Your task to perform on an android device: uninstall "Roku - Official Remote Control" Image 0: 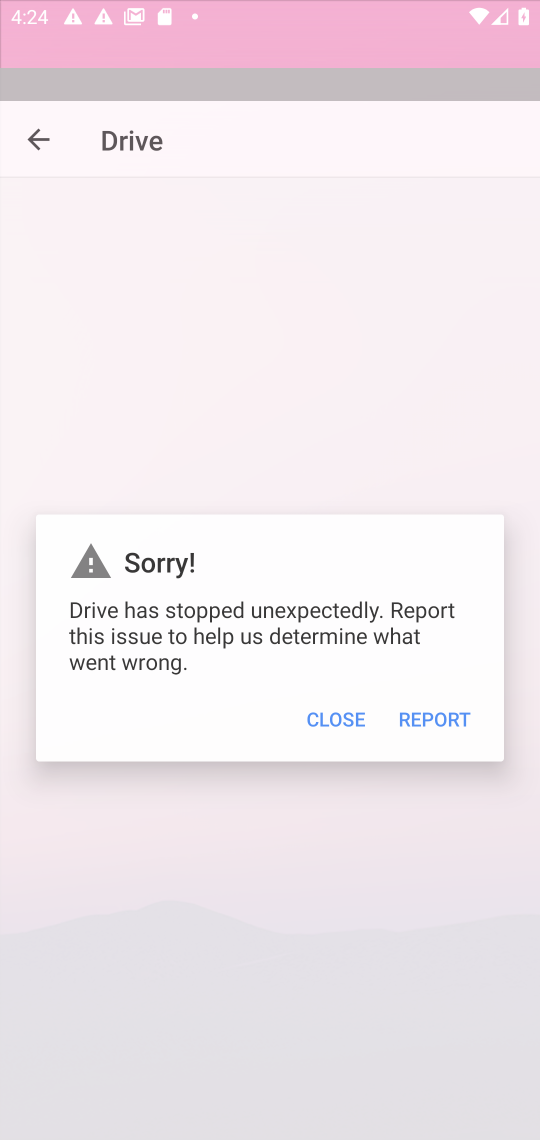
Step 0: press home button
Your task to perform on an android device: uninstall "Roku - Official Remote Control" Image 1: 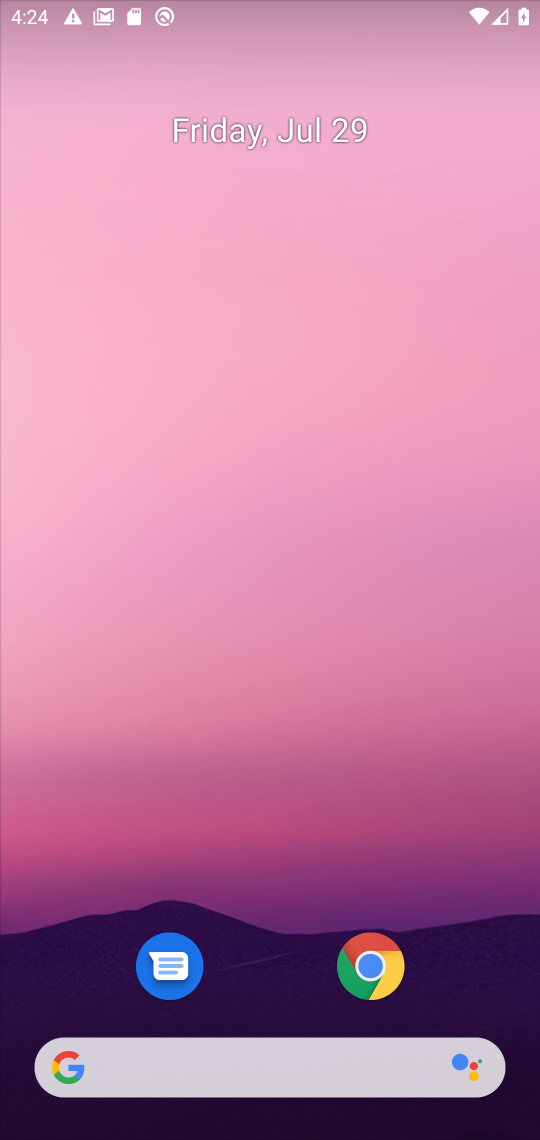
Step 1: click (403, 897)
Your task to perform on an android device: uninstall "Roku - Official Remote Control" Image 2: 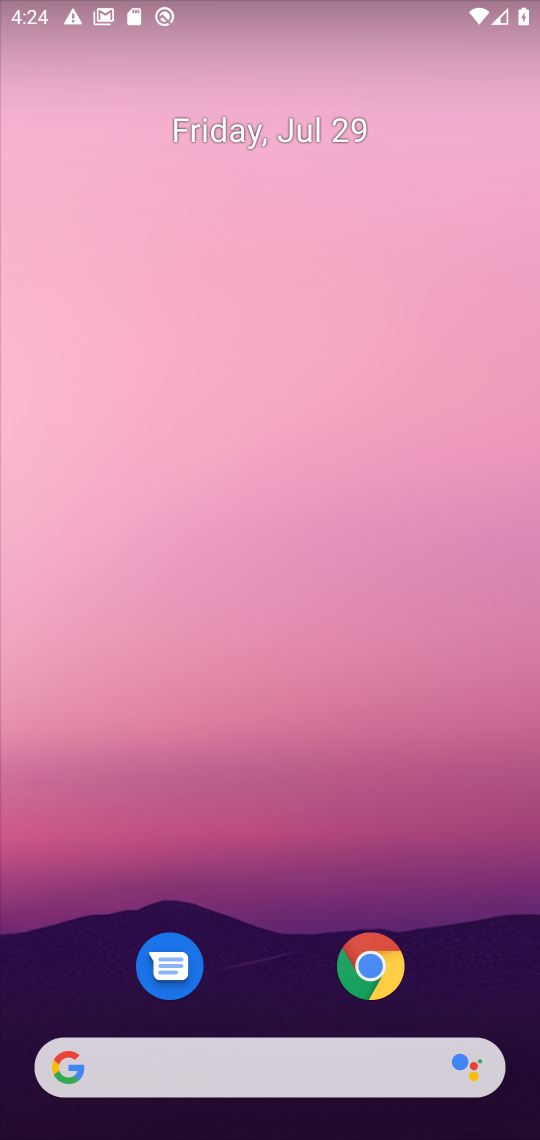
Step 2: drag from (264, 1005) to (268, 82)
Your task to perform on an android device: uninstall "Roku - Official Remote Control" Image 3: 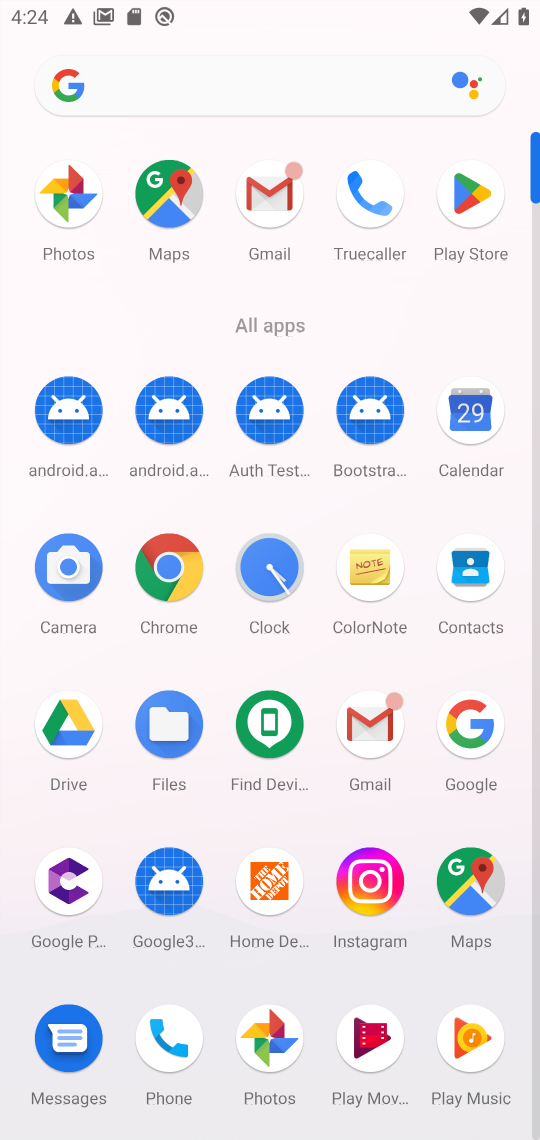
Step 3: click (467, 227)
Your task to perform on an android device: uninstall "Roku - Official Remote Control" Image 4: 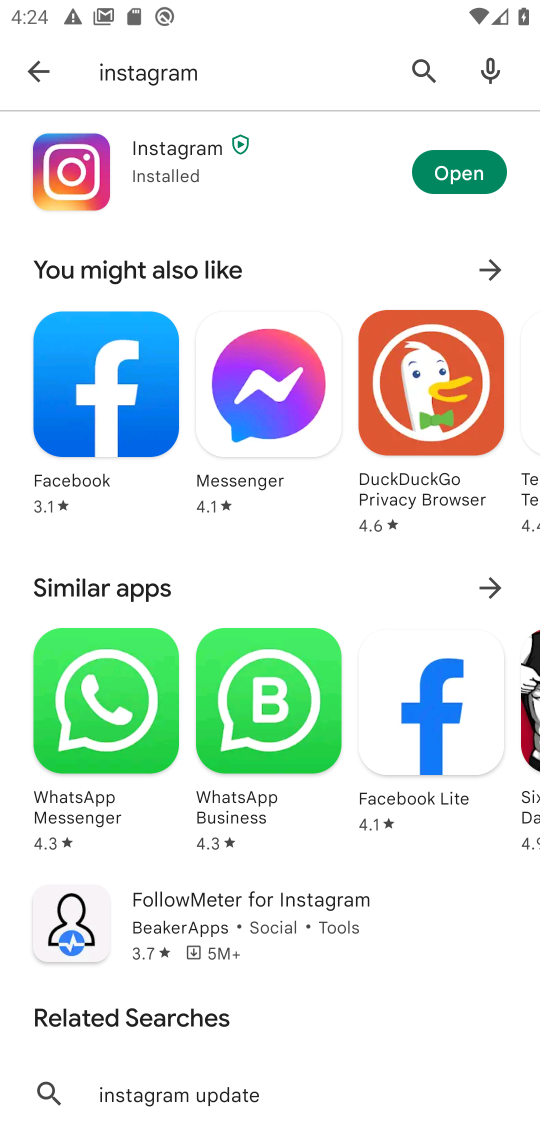
Step 4: click (171, 84)
Your task to perform on an android device: uninstall "Roku - Official Remote Control" Image 5: 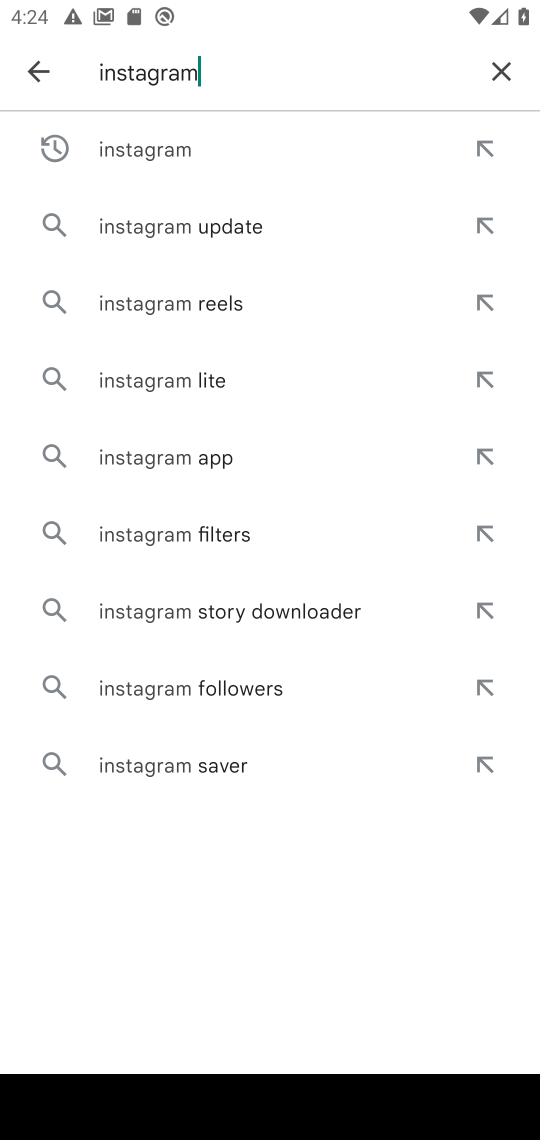
Step 5: click (497, 65)
Your task to perform on an android device: uninstall "Roku - Official Remote Control" Image 6: 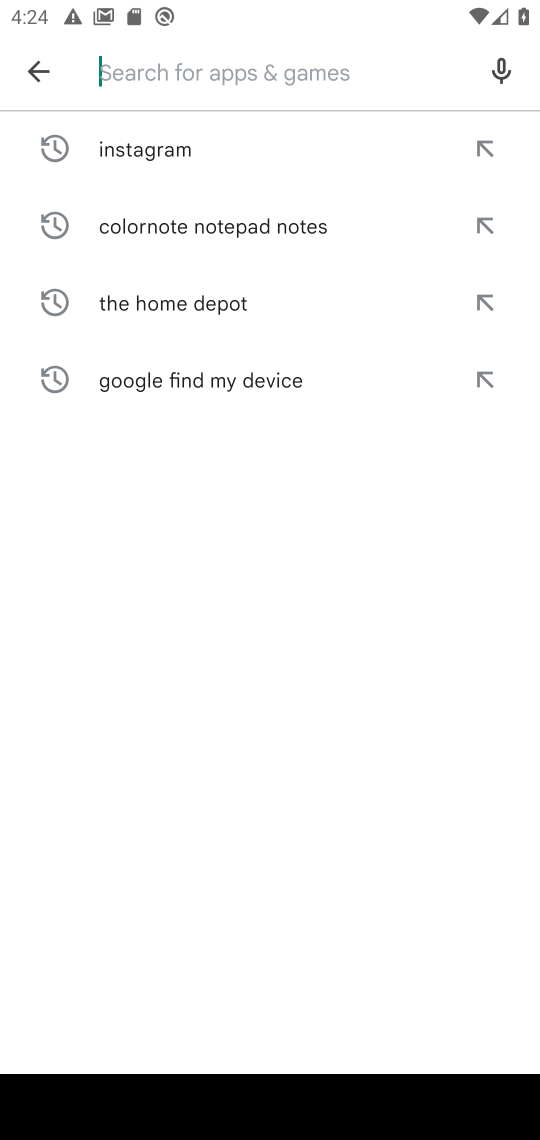
Step 6: type "Roku"
Your task to perform on an android device: uninstall "Roku - Official Remote Control" Image 7: 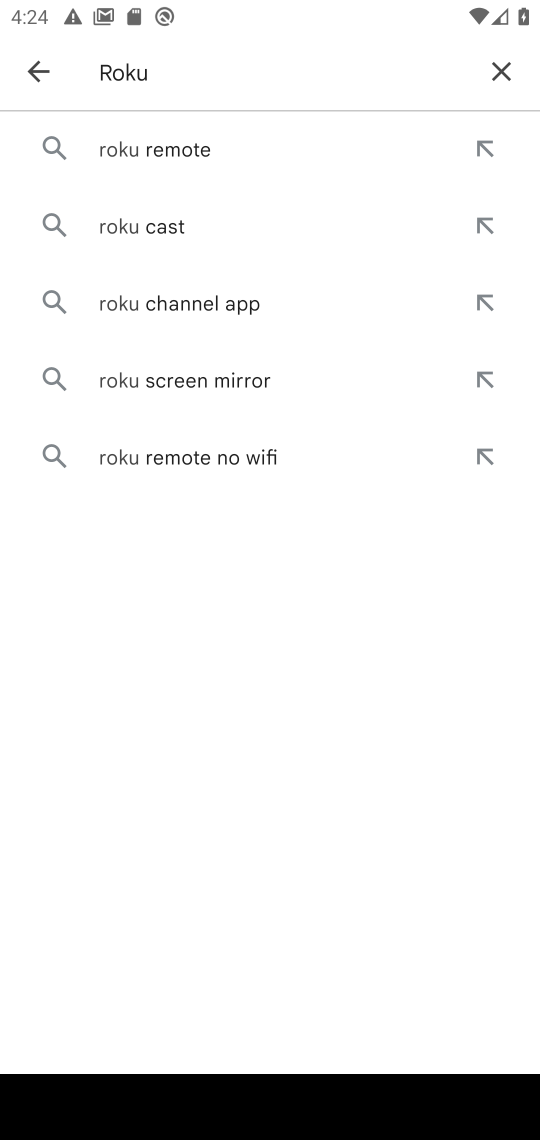
Step 7: click (194, 165)
Your task to perform on an android device: uninstall "Roku - Official Remote Control" Image 8: 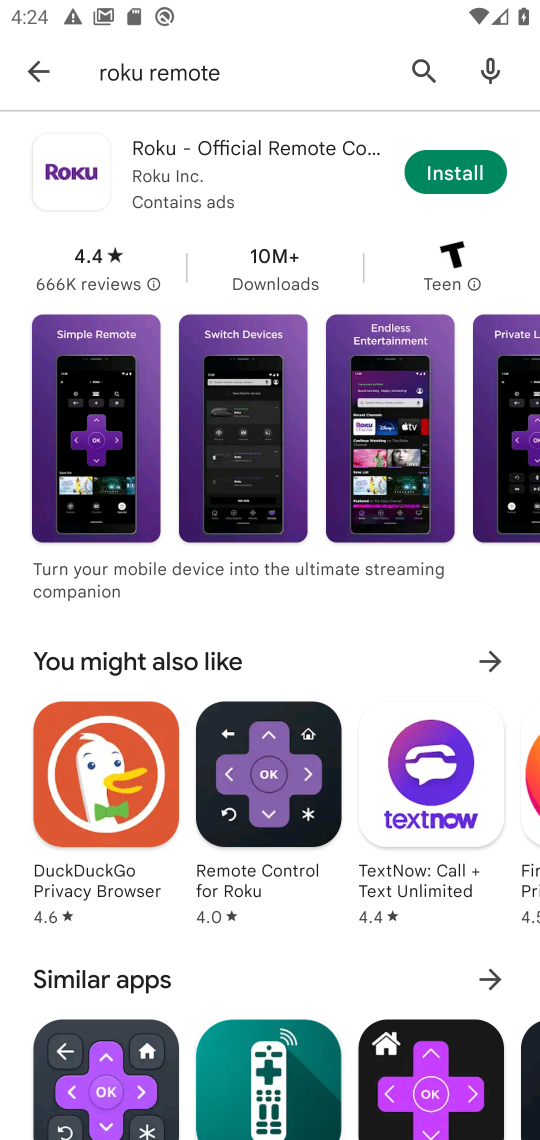
Step 8: task complete